Your task to perform on an android device: turn off javascript in the chrome app Image 0: 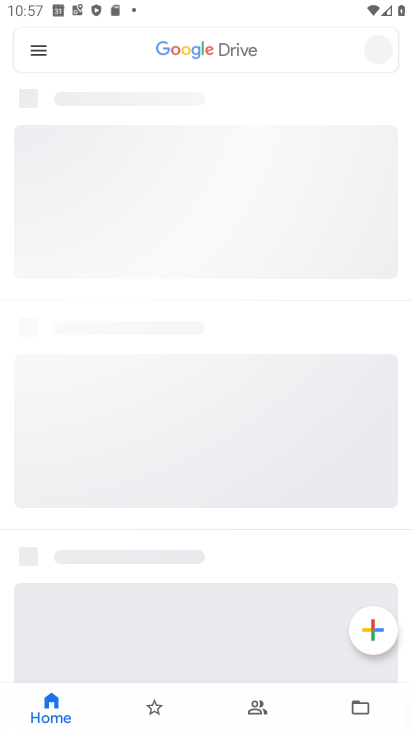
Step 0: drag from (368, 621) to (337, 304)
Your task to perform on an android device: turn off javascript in the chrome app Image 1: 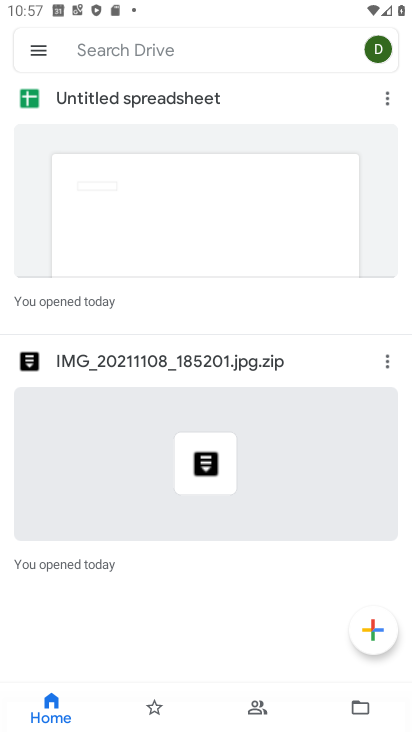
Step 1: press home button
Your task to perform on an android device: turn off javascript in the chrome app Image 2: 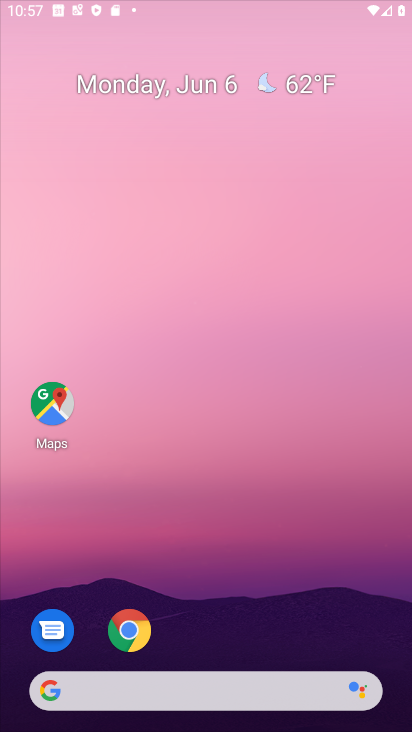
Step 2: drag from (358, 610) to (269, 163)
Your task to perform on an android device: turn off javascript in the chrome app Image 3: 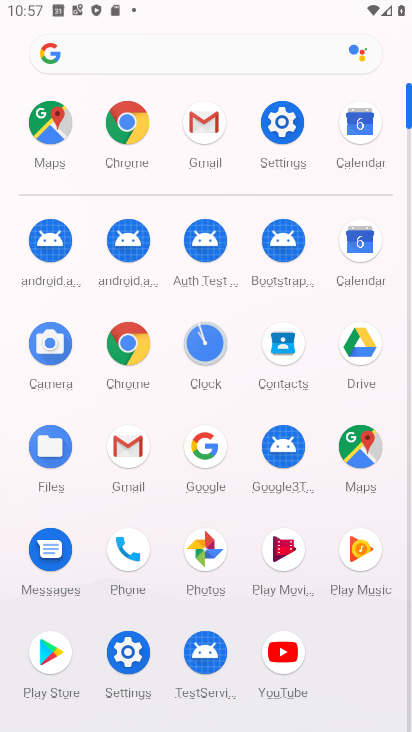
Step 3: click (126, 338)
Your task to perform on an android device: turn off javascript in the chrome app Image 4: 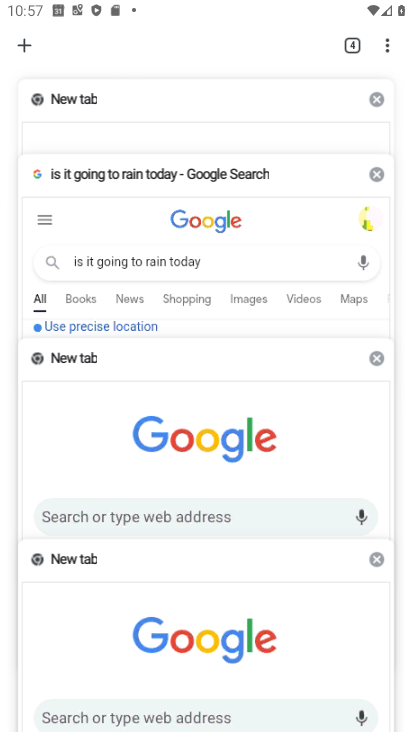
Step 4: click (16, 49)
Your task to perform on an android device: turn off javascript in the chrome app Image 5: 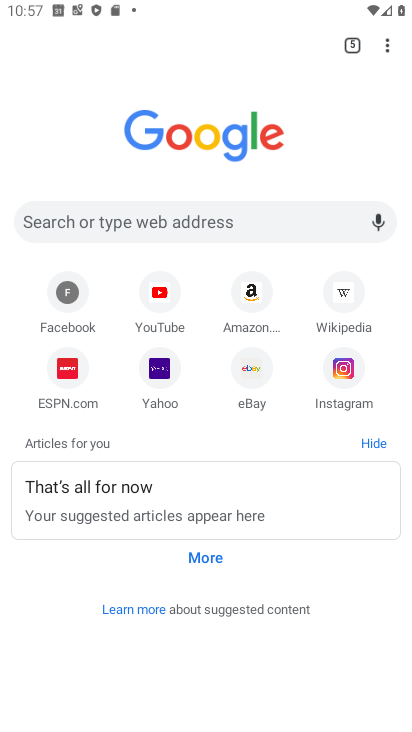
Step 5: click (349, 46)
Your task to perform on an android device: turn off javascript in the chrome app Image 6: 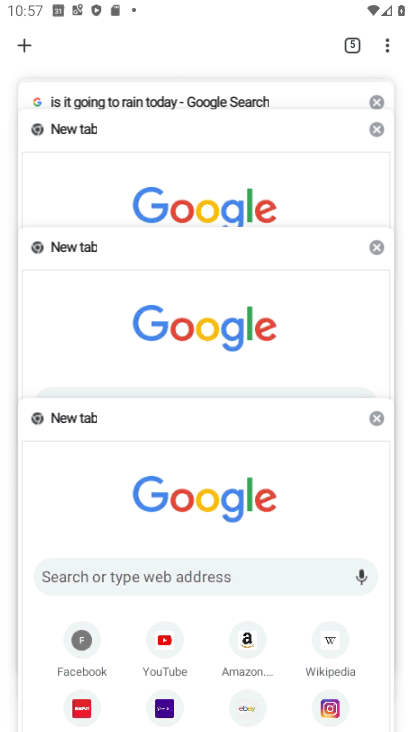
Step 6: drag from (383, 50) to (285, 176)
Your task to perform on an android device: turn off javascript in the chrome app Image 7: 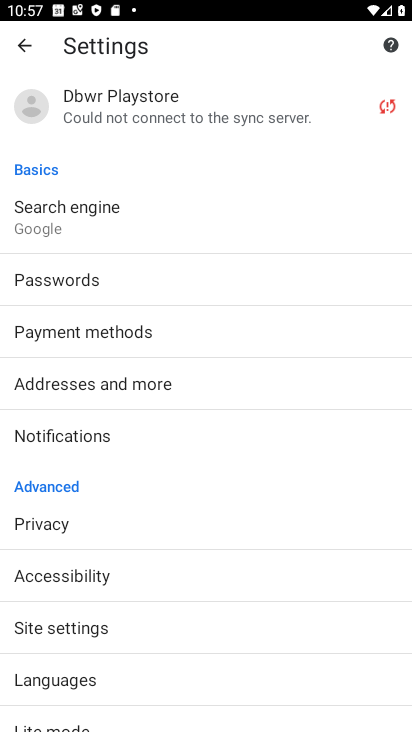
Step 7: click (105, 631)
Your task to perform on an android device: turn off javascript in the chrome app Image 8: 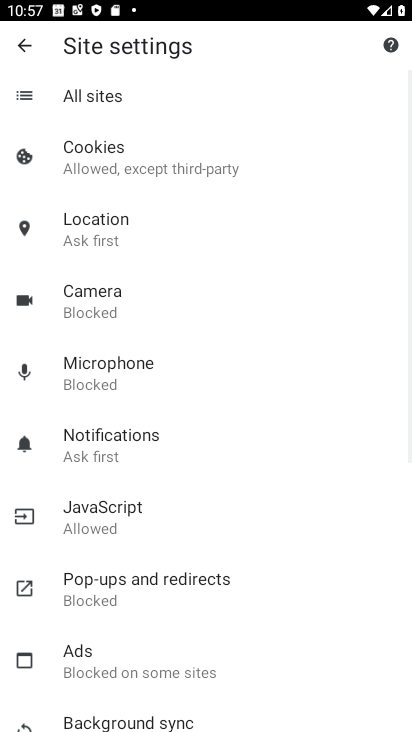
Step 8: click (206, 510)
Your task to perform on an android device: turn off javascript in the chrome app Image 9: 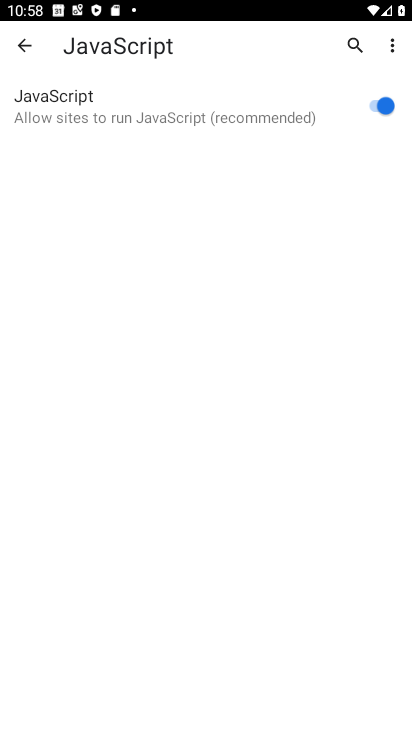
Step 9: click (380, 110)
Your task to perform on an android device: turn off javascript in the chrome app Image 10: 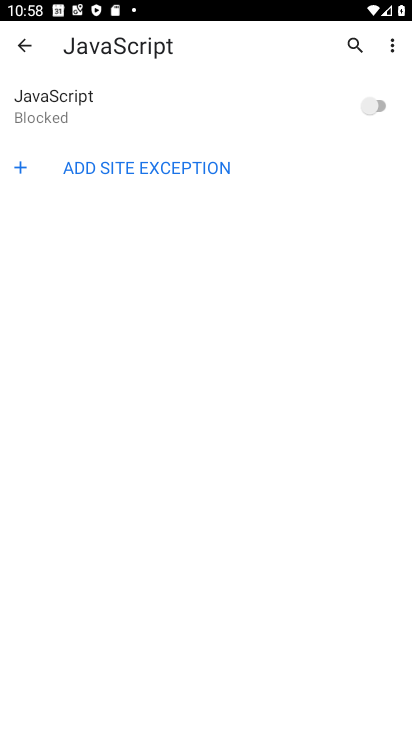
Step 10: task complete